Your task to perform on an android device: Go to notification settings Image 0: 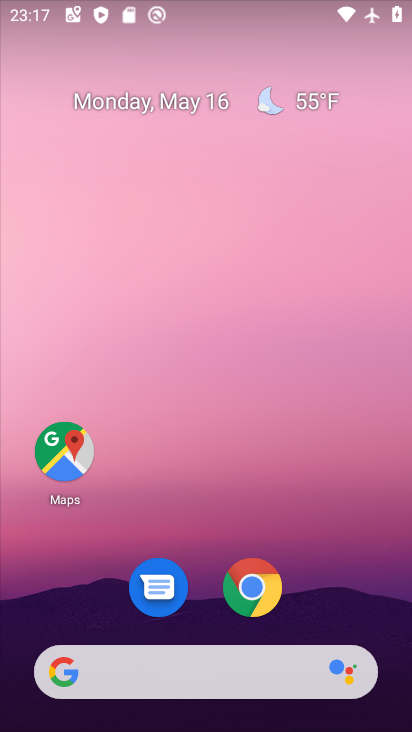
Step 0: drag from (327, 574) to (253, 36)
Your task to perform on an android device: Go to notification settings Image 1: 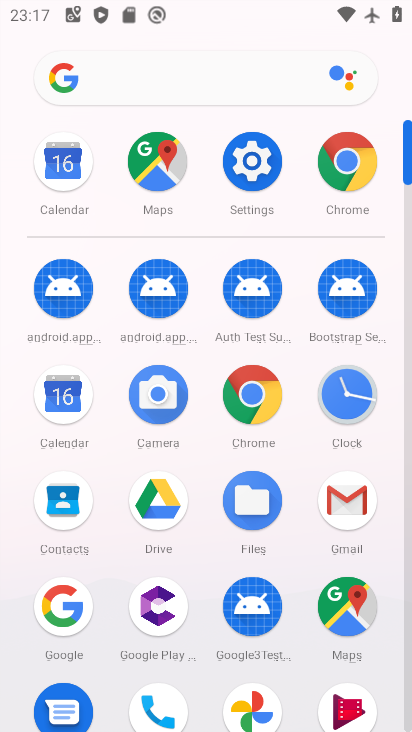
Step 1: drag from (19, 569) to (51, 281)
Your task to perform on an android device: Go to notification settings Image 2: 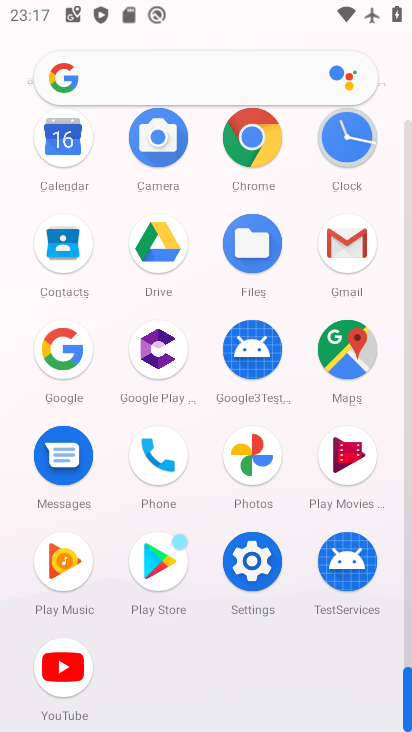
Step 2: click (249, 553)
Your task to perform on an android device: Go to notification settings Image 3: 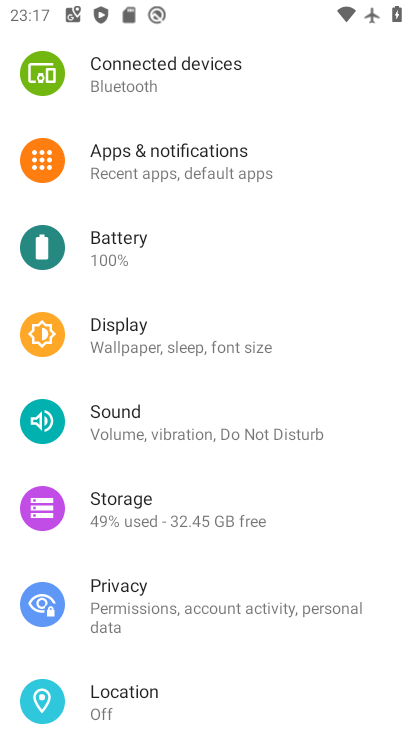
Step 3: click (242, 155)
Your task to perform on an android device: Go to notification settings Image 4: 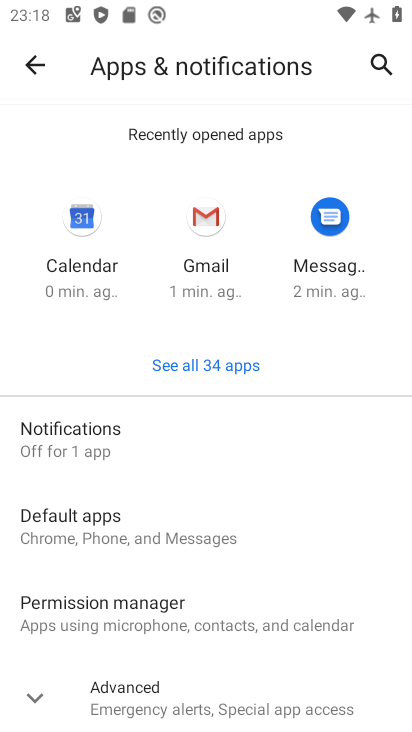
Step 4: click (162, 427)
Your task to perform on an android device: Go to notification settings Image 5: 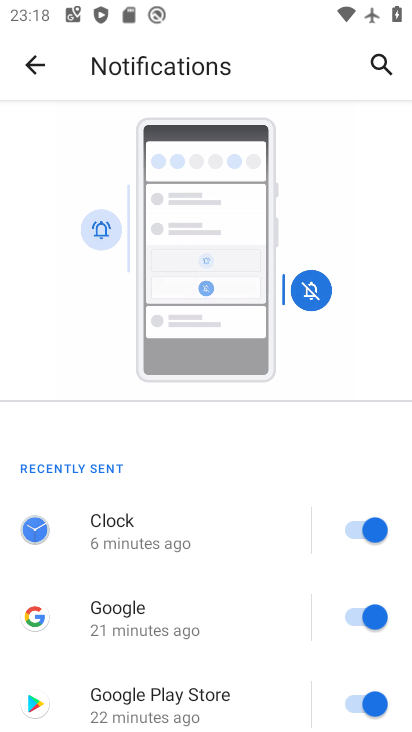
Step 5: drag from (182, 606) to (194, 269)
Your task to perform on an android device: Go to notification settings Image 6: 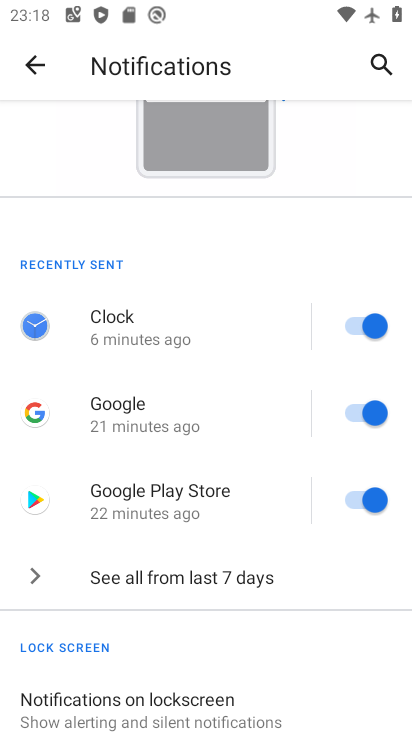
Step 6: drag from (289, 615) to (245, 252)
Your task to perform on an android device: Go to notification settings Image 7: 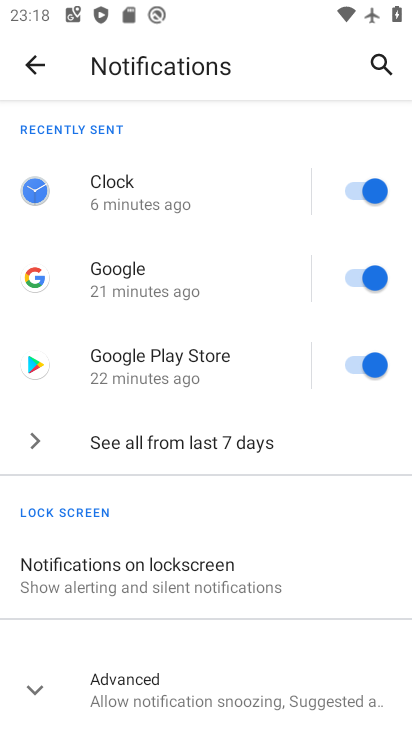
Step 7: click (49, 678)
Your task to perform on an android device: Go to notification settings Image 8: 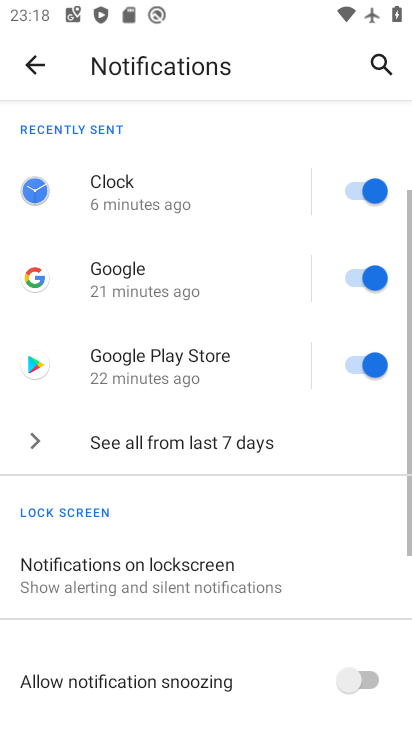
Step 8: task complete